Your task to perform on an android device: Open the calendar and show me this week's events? Image 0: 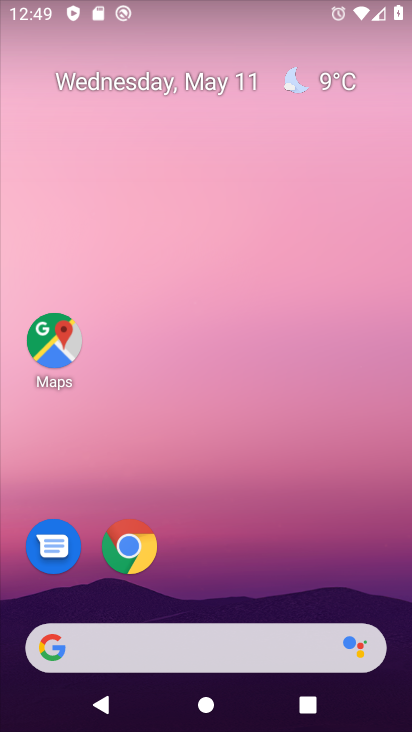
Step 0: drag from (194, 452) to (288, 124)
Your task to perform on an android device: Open the calendar and show me this week's events? Image 1: 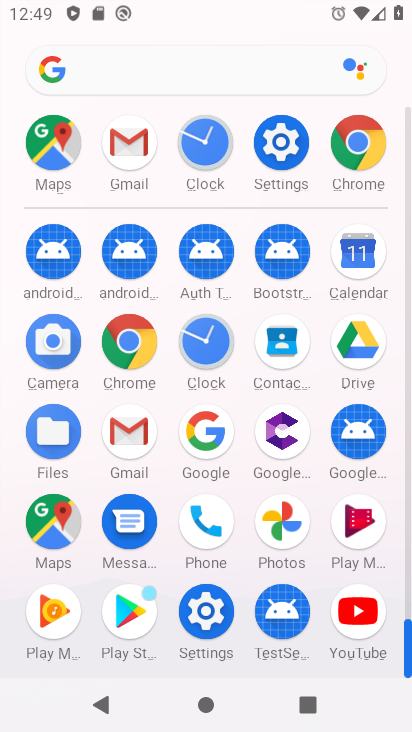
Step 1: drag from (226, 624) to (252, 154)
Your task to perform on an android device: Open the calendar and show me this week's events? Image 2: 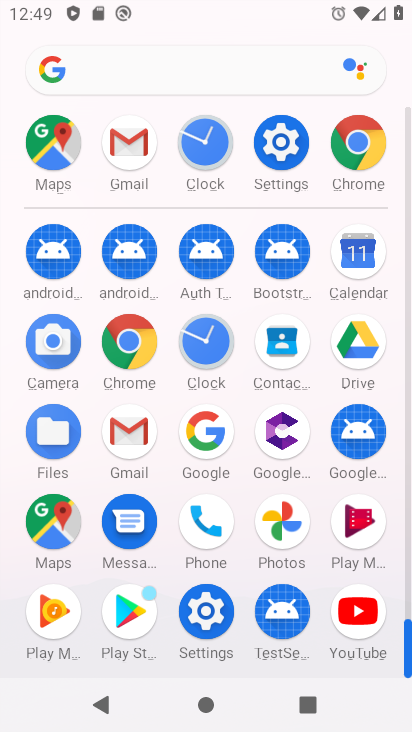
Step 2: drag from (169, 562) to (101, 83)
Your task to perform on an android device: Open the calendar and show me this week's events? Image 3: 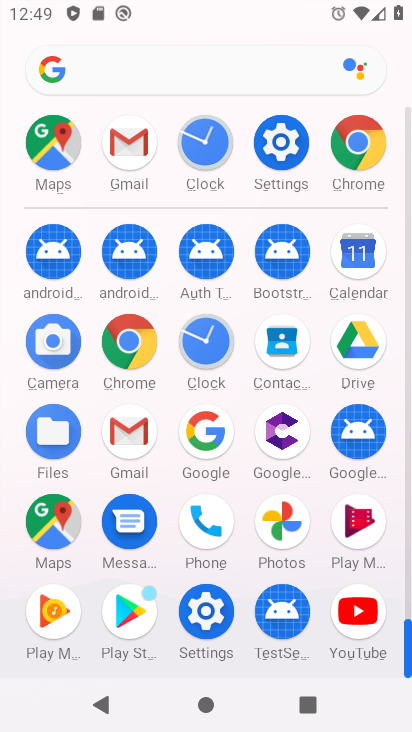
Step 3: drag from (218, 553) to (254, 278)
Your task to perform on an android device: Open the calendar and show me this week's events? Image 4: 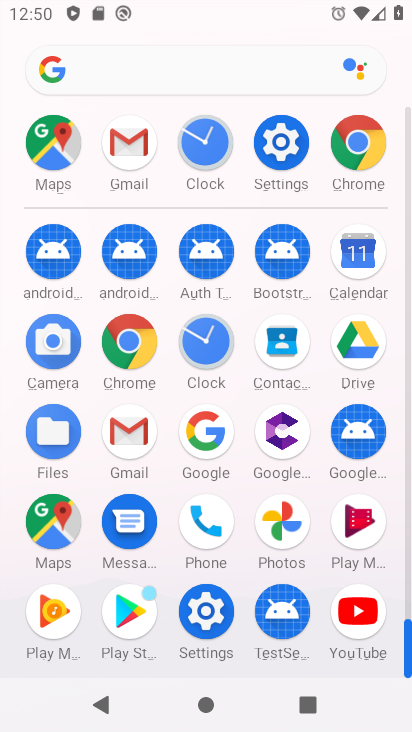
Step 4: click (347, 268)
Your task to perform on an android device: Open the calendar and show me this week's events? Image 5: 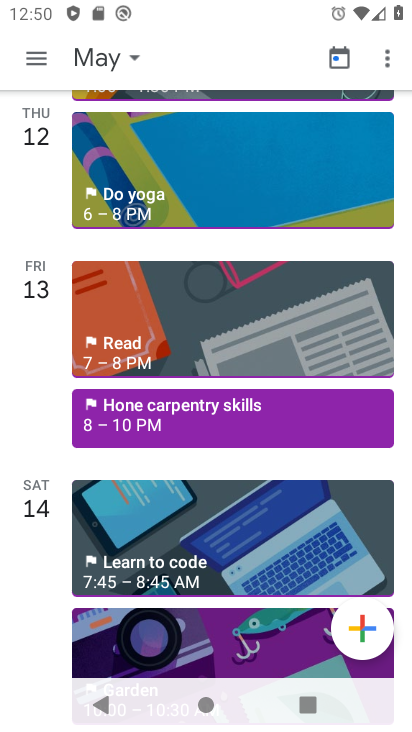
Step 5: drag from (225, 535) to (315, 267)
Your task to perform on an android device: Open the calendar and show me this week's events? Image 6: 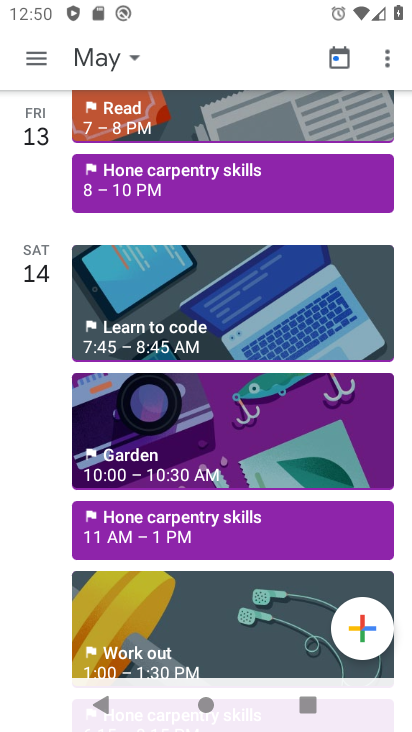
Step 6: click (112, 48)
Your task to perform on an android device: Open the calendar and show me this week's events? Image 7: 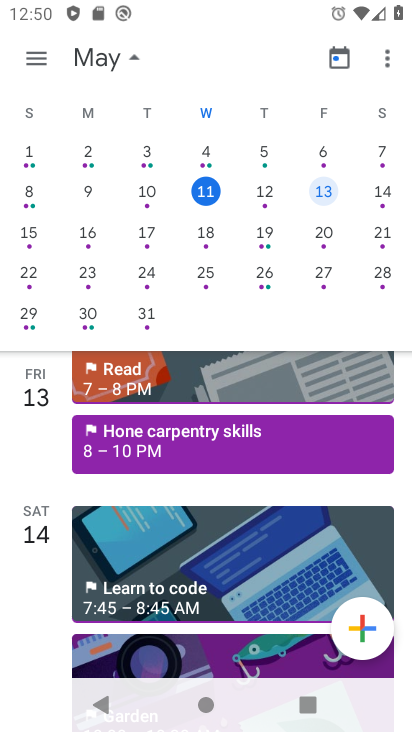
Step 7: click (271, 192)
Your task to perform on an android device: Open the calendar and show me this week's events? Image 8: 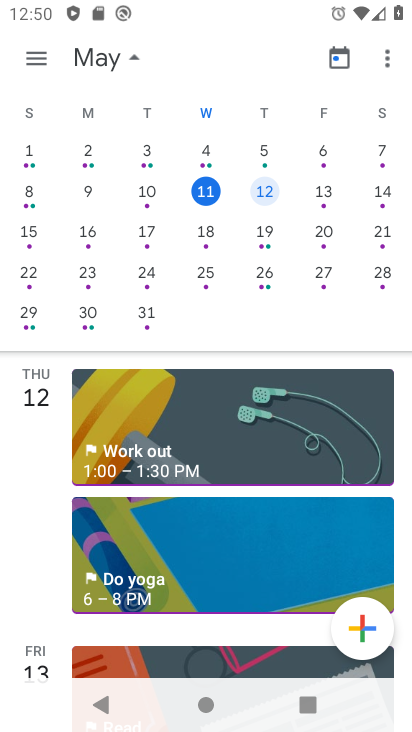
Step 8: task complete